Your task to perform on an android device: toggle location history Image 0: 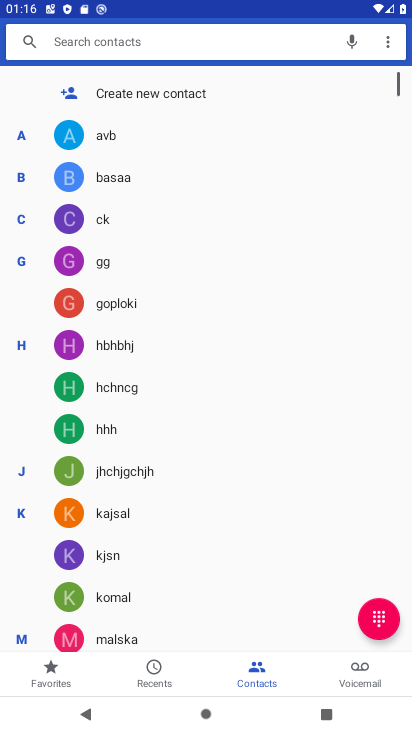
Step 0: press home button
Your task to perform on an android device: toggle location history Image 1: 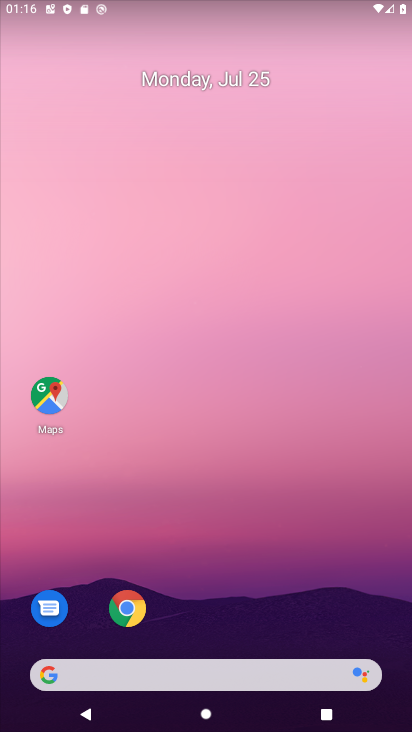
Step 1: drag from (201, 645) to (296, 2)
Your task to perform on an android device: toggle location history Image 2: 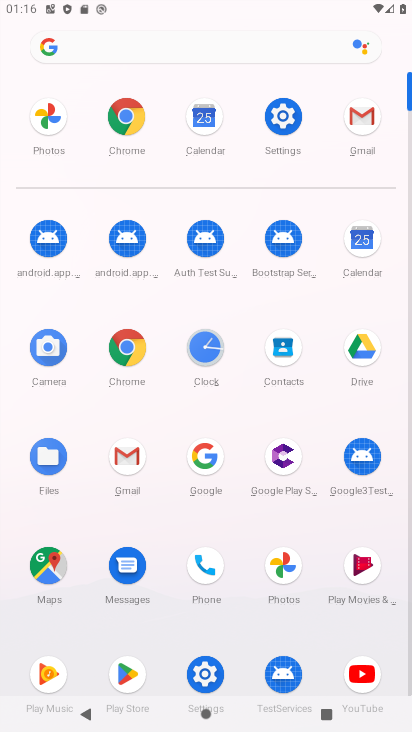
Step 2: click (273, 116)
Your task to perform on an android device: toggle location history Image 3: 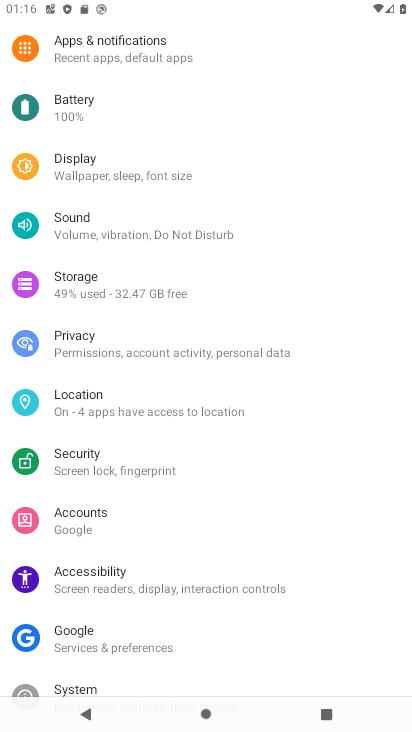
Step 3: click (96, 403)
Your task to perform on an android device: toggle location history Image 4: 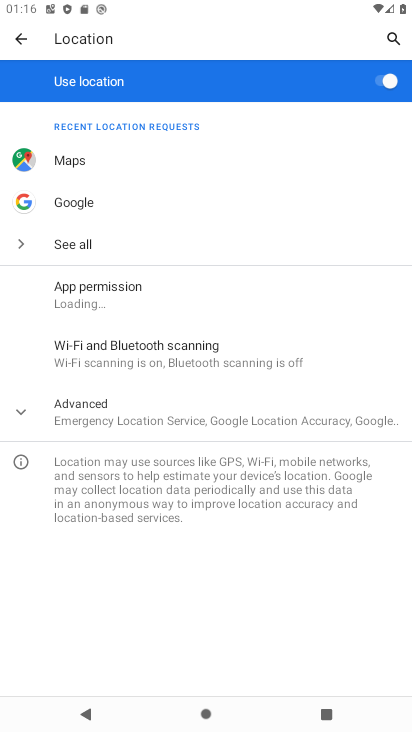
Step 4: click (90, 403)
Your task to perform on an android device: toggle location history Image 5: 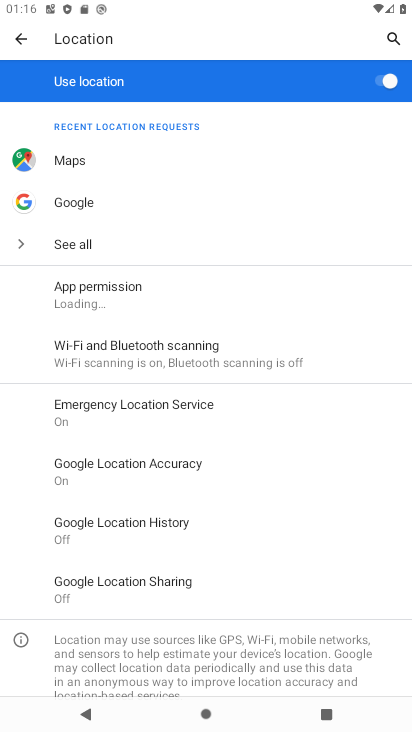
Step 5: click (130, 523)
Your task to perform on an android device: toggle location history Image 6: 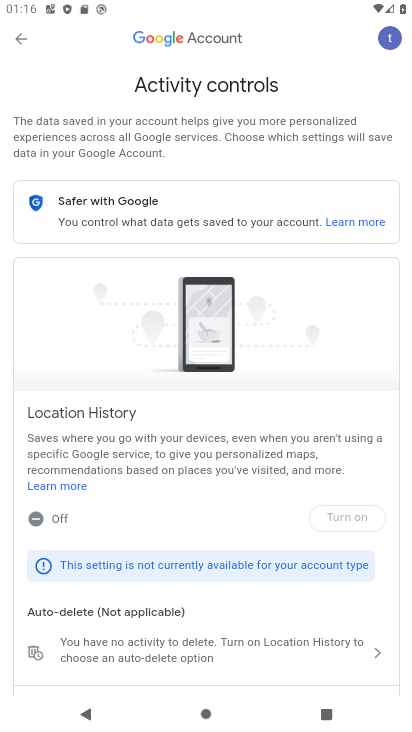
Step 6: drag from (366, 505) to (316, 87)
Your task to perform on an android device: toggle location history Image 7: 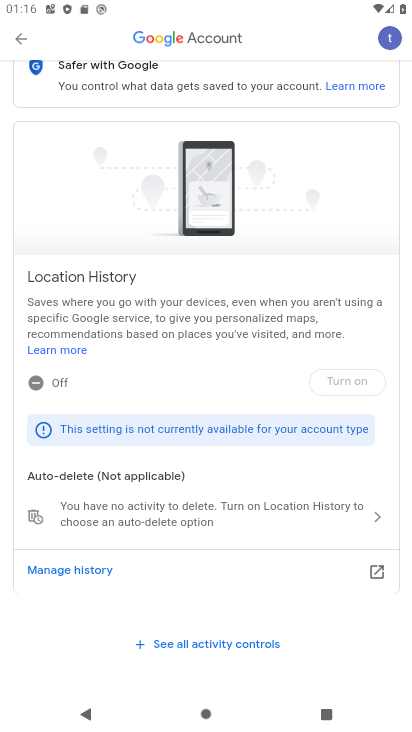
Step 7: click (40, 419)
Your task to perform on an android device: toggle location history Image 8: 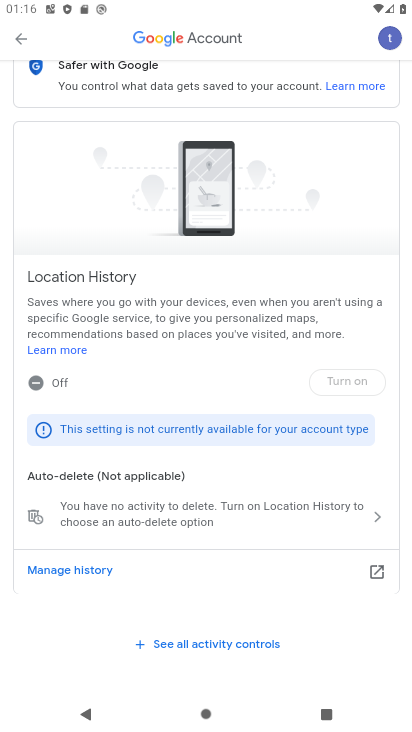
Step 8: click (53, 383)
Your task to perform on an android device: toggle location history Image 9: 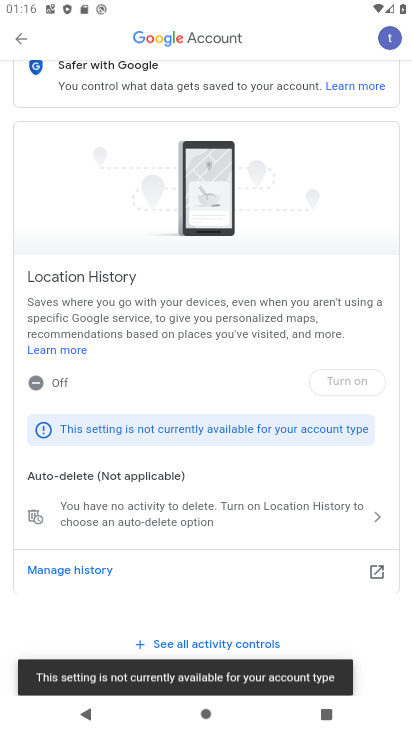
Step 9: task complete